Your task to perform on an android device: turn off priority inbox in the gmail app Image 0: 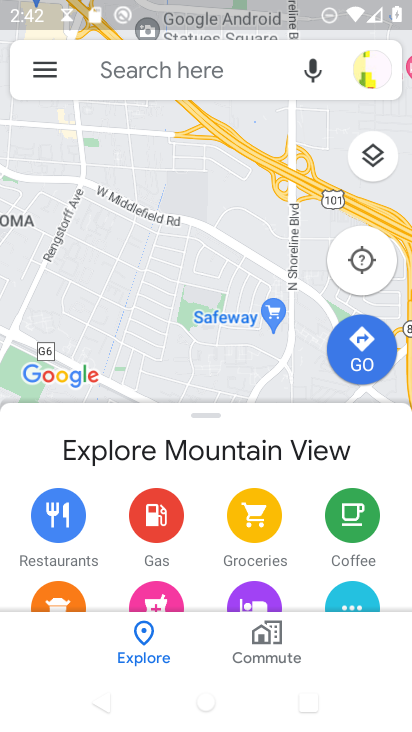
Step 0: press home button
Your task to perform on an android device: turn off priority inbox in the gmail app Image 1: 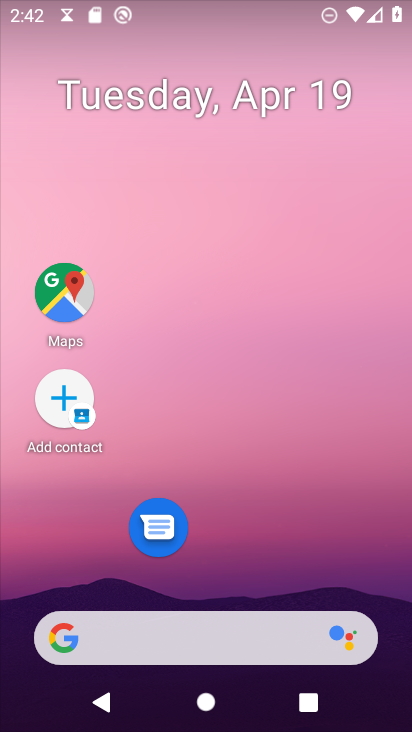
Step 1: drag from (219, 563) to (162, 80)
Your task to perform on an android device: turn off priority inbox in the gmail app Image 2: 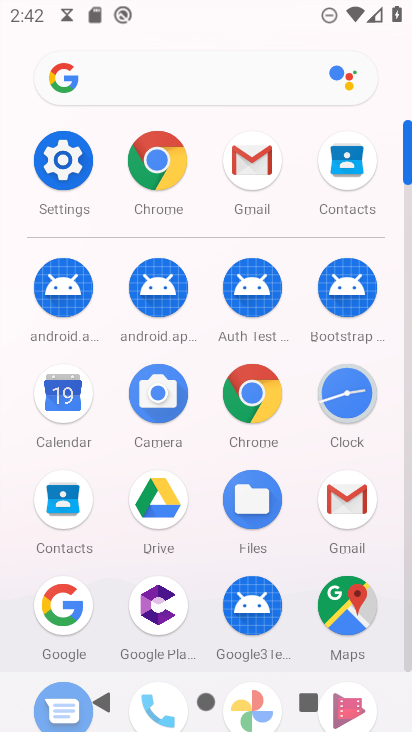
Step 2: click (254, 154)
Your task to perform on an android device: turn off priority inbox in the gmail app Image 3: 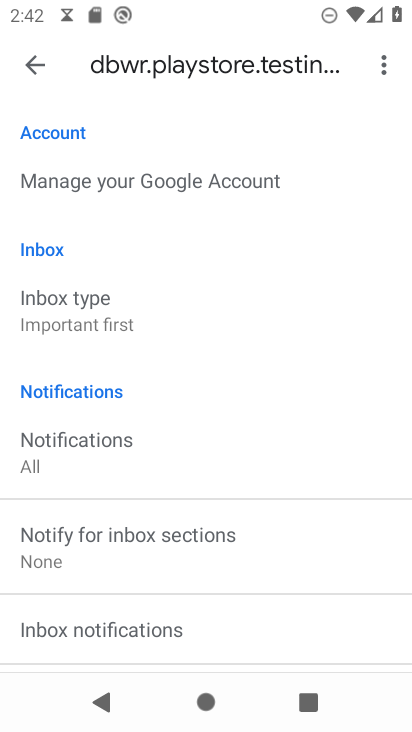
Step 3: click (63, 307)
Your task to perform on an android device: turn off priority inbox in the gmail app Image 4: 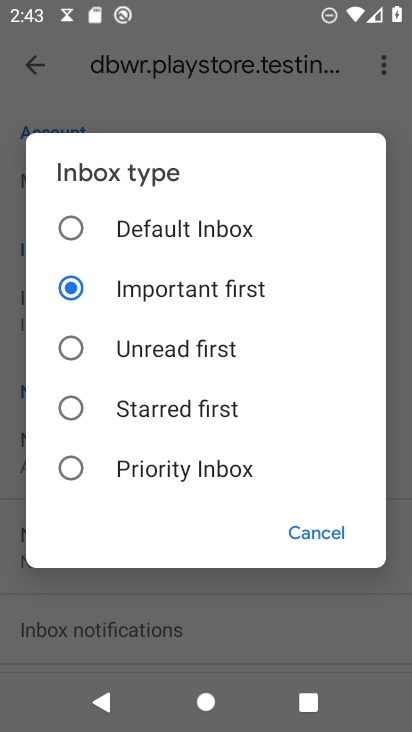
Step 4: task complete